Your task to perform on an android device: toggle airplane mode Image 0: 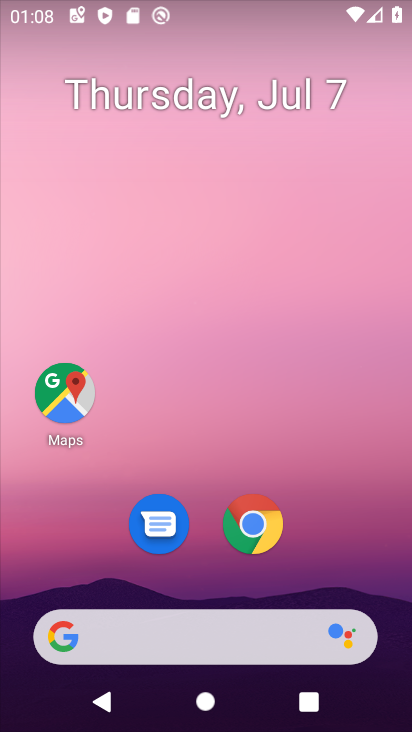
Step 0: drag from (217, 456) to (249, 44)
Your task to perform on an android device: toggle airplane mode Image 1: 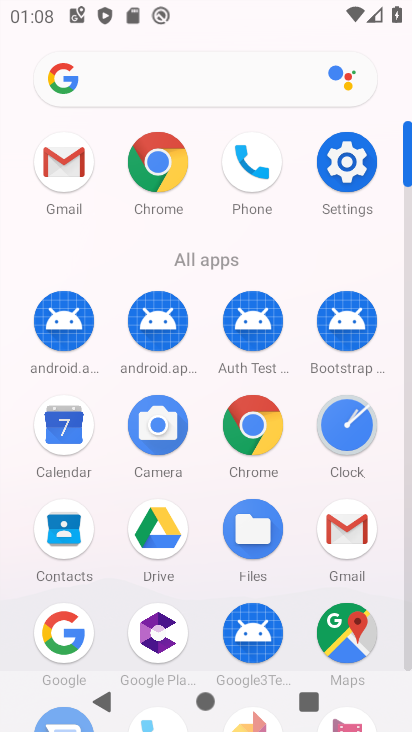
Step 1: click (327, 158)
Your task to perform on an android device: toggle airplane mode Image 2: 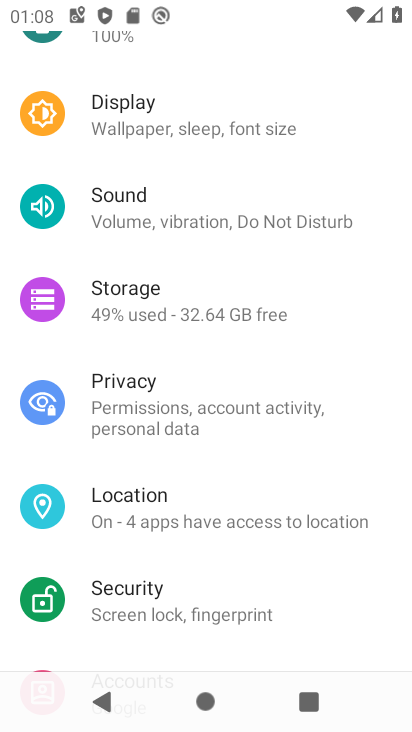
Step 2: drag from (273, 219) to (241, 571)
Your task to perform on an android device: toggle airplane mode Image 3: 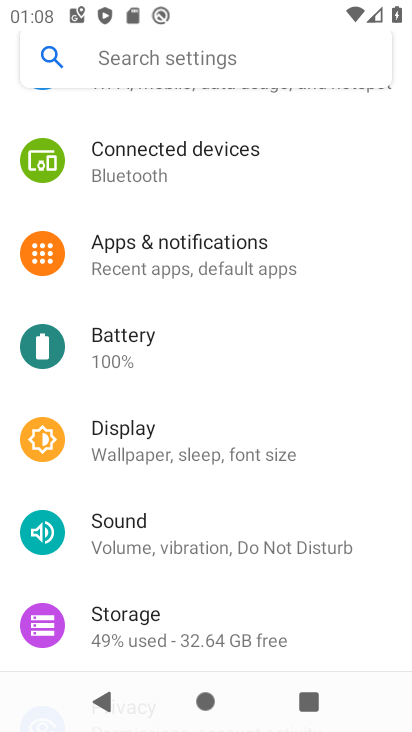
Step 3: drag from (239, 307) to (235, 593)
Your task to perform on an android device: toggle airplane mode Image 4: 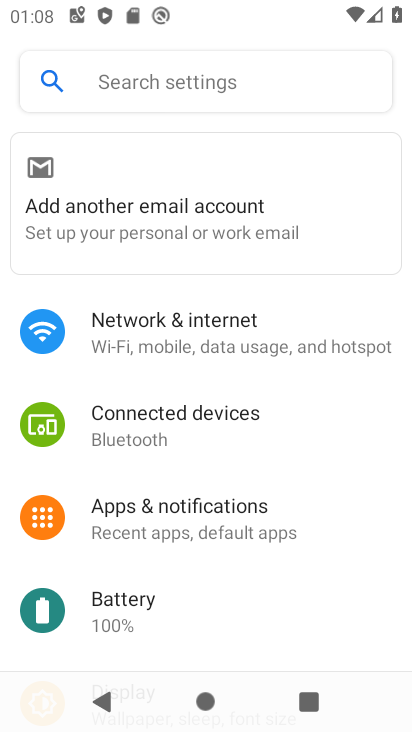
Step 4: click (239, 339)
Your task to perform on an android device: toggle airplane mode Image 5: 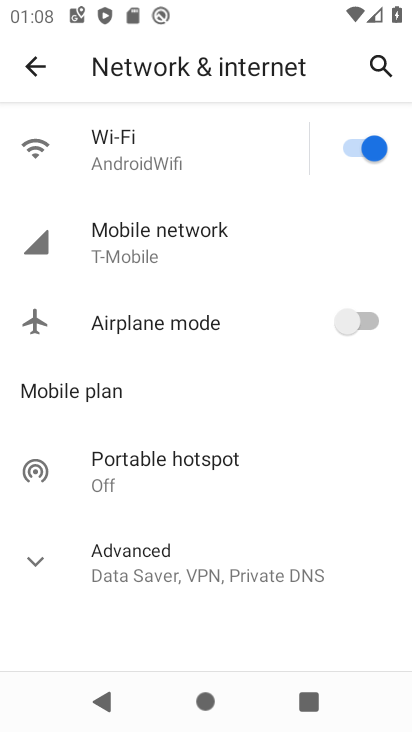
Step 5: click (368, 313)
Your task to perform on an android device: toggle airplane mode Image 6: 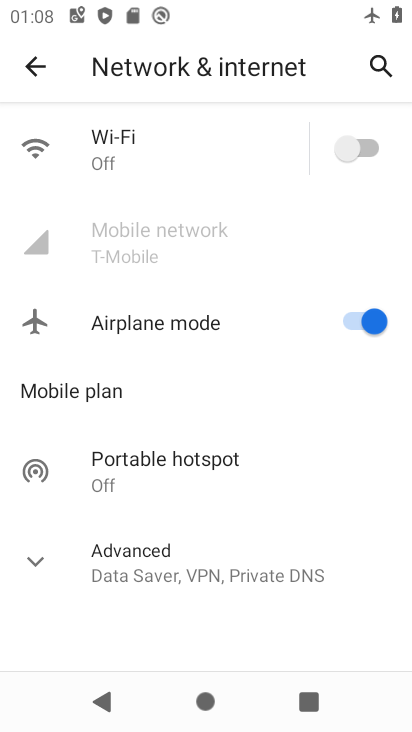
Step 6: task complete